Your task to perform on an android device: Open calendar and show me the second week of next month Image 0: 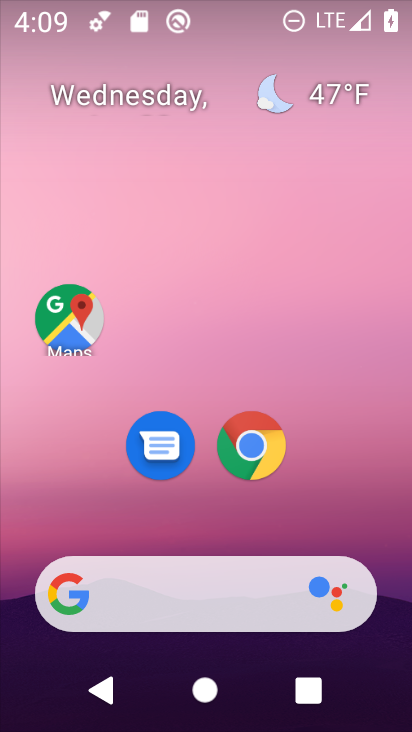
Step 0: drag from (191, 514) to (282, 58)
Your task to perform on an android device: Open calendar and show me the second week of next month Image 1: 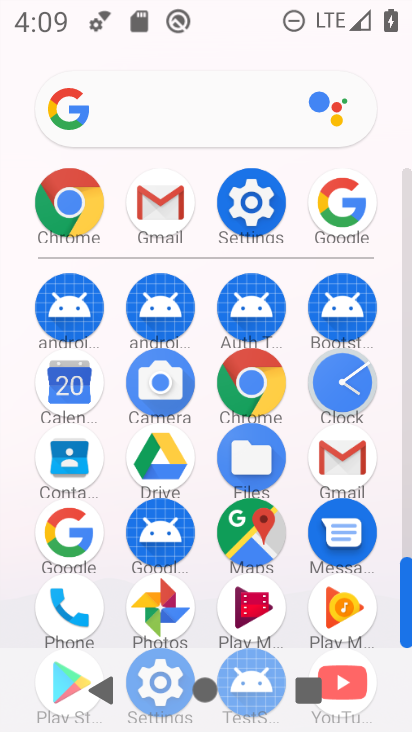
Step 1: click (71, 455)
Your task to perform on an android device: Open calendar and show me the second week of next month Image 2: 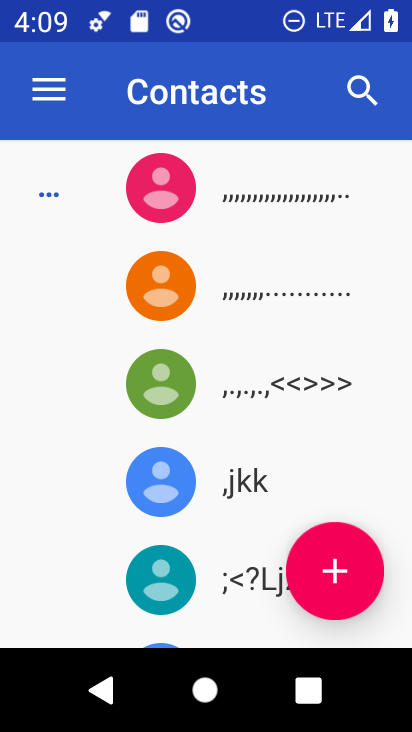
Step 2: press back button
Your task to perform on an android device: Open calendar and show me the second week of next month Image 3: 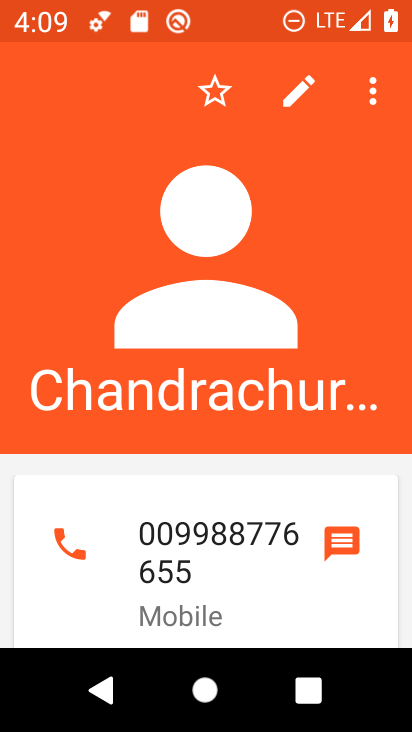
Step 3: press back button
Your task to perform on an android device: Open calendar and show me the second week of next month Image 4: 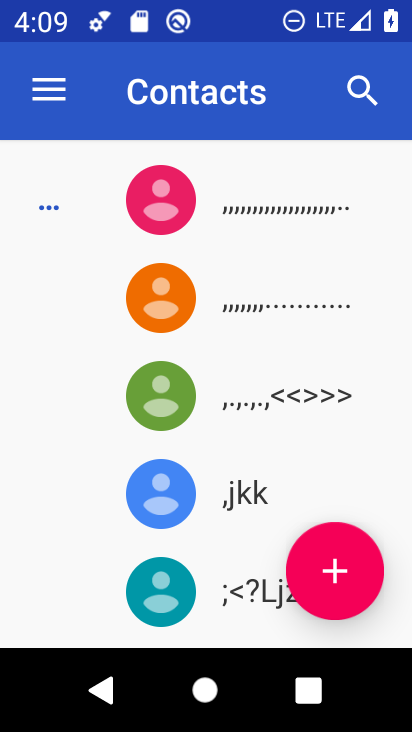
Step 4: press back button
Your task to perform on an android device: Open calendar and show me the second week of next month Image 5: 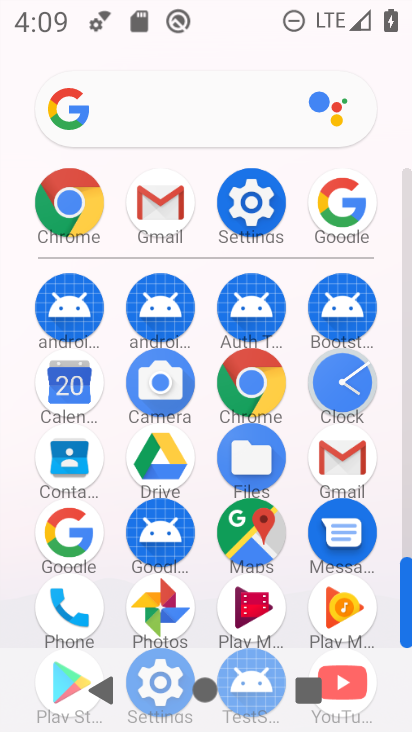
Step 5: click (73, 390)
Your task to perform on an android device: Open calendar and show me the second week of next month Image 6: 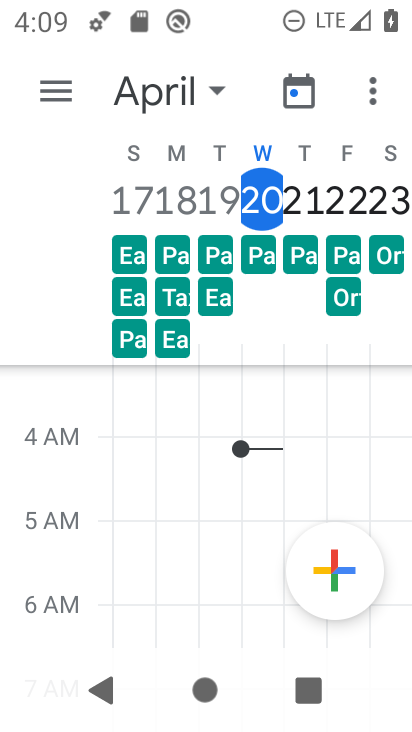
Step 6: click (307, 100)
Your task to perform on an android device: Open calendar and show me the second week of next month Image 7: 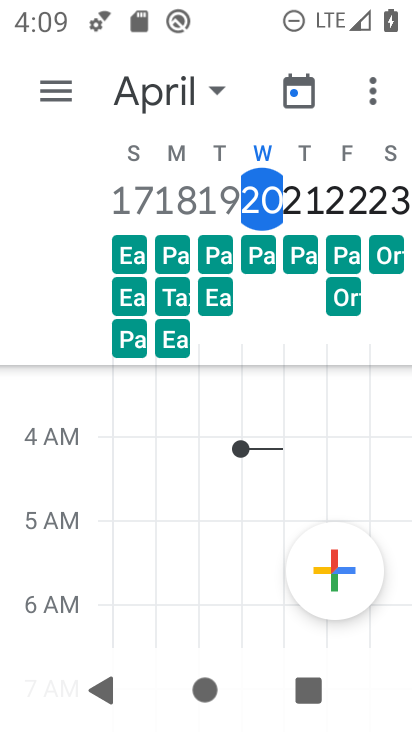
Step 7: click (205, 94)
Your task to perform on an android device: Open calendar and show me the second week of next month Image 8: 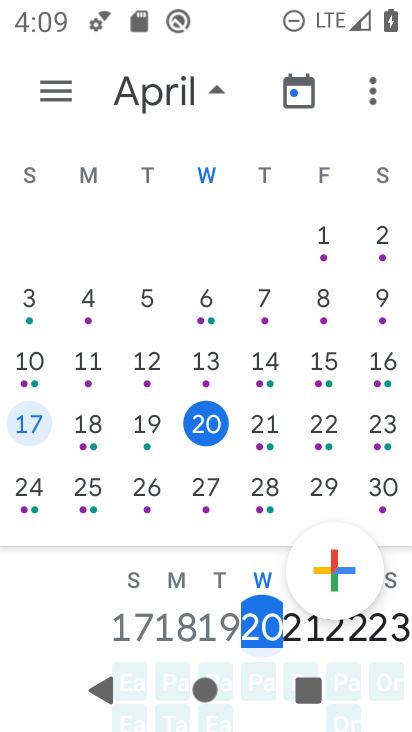
Step 8: drag from (350, 407) to (28, 377)
Your task to perform on an android device: Open calendar and show me the second week of next month Image 9: 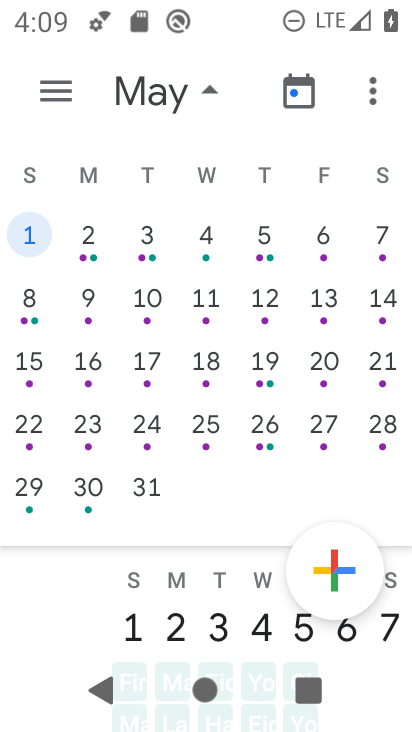
Step 9: click (94, 298)
Your task to perform on an android device: Open calendar and show me the second week of next month Image 10: 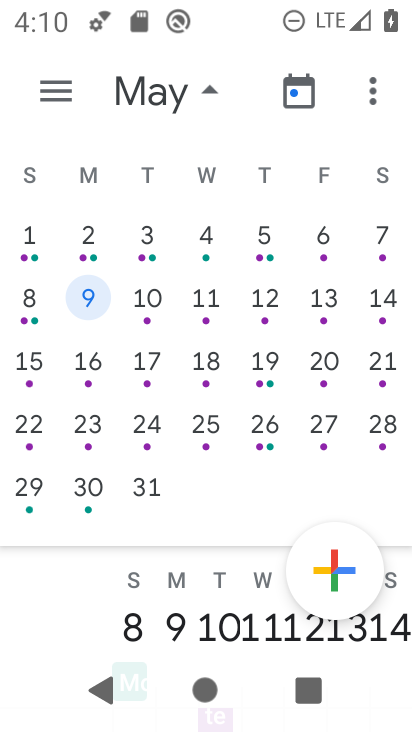
Step 10: click (50, 98)
Your task to perform on an android device: Open calendar and show me the second week of next month Image 11: 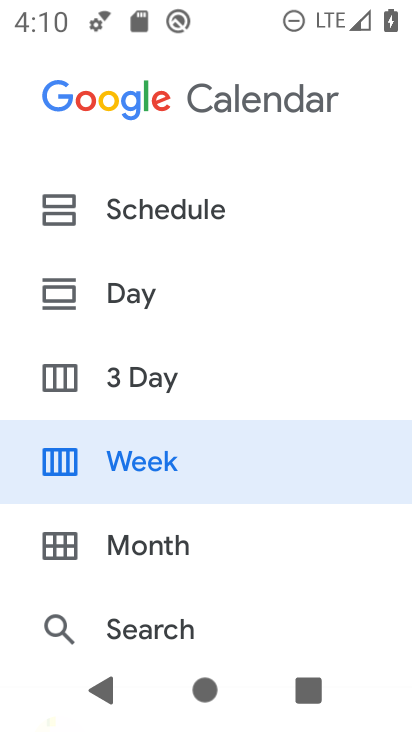
Step 11: click (126, 455)
Your task to perform on an android device: Open calendar and show me the second week of next month Image 12: 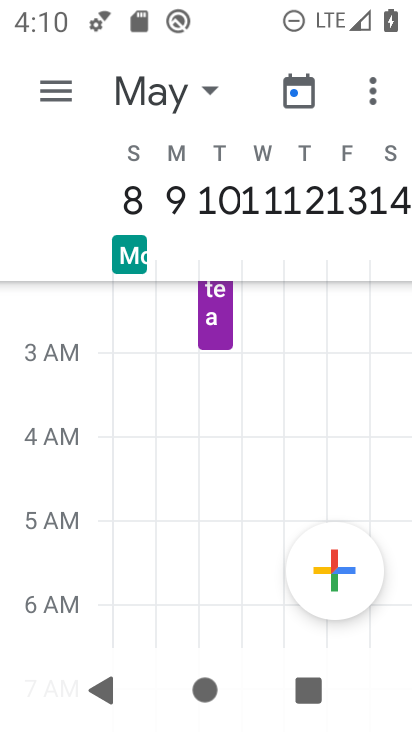
Step 12: task complete